Your task to perform on an android device: turn off priority inbox in the gmail app Image 0: 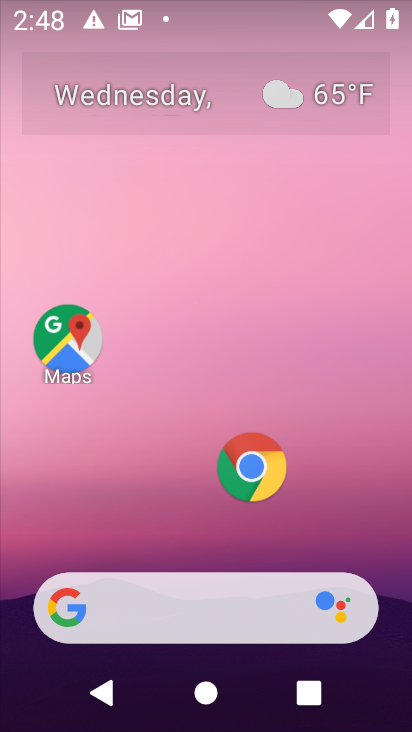
Step 0: drag from (161, 525) to (228, 120)
Your task to perform on an android device: turn off priority inbox in the gmail app Image 1: 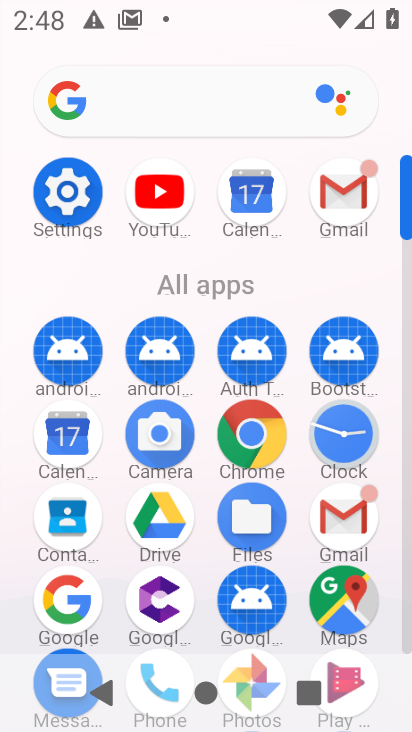
Step 1: click (354, 193)
Your task to perform on an android device: turn off priority inbox in the gmail app Image 2: 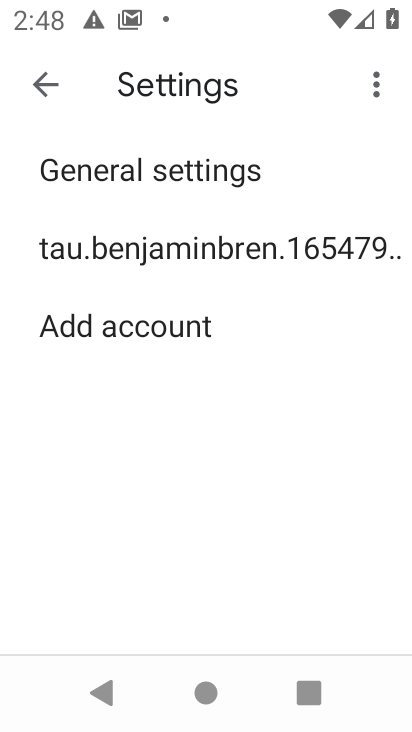
Step 2: task complete